Your task to perform on an android device: set an alarm Image 0: 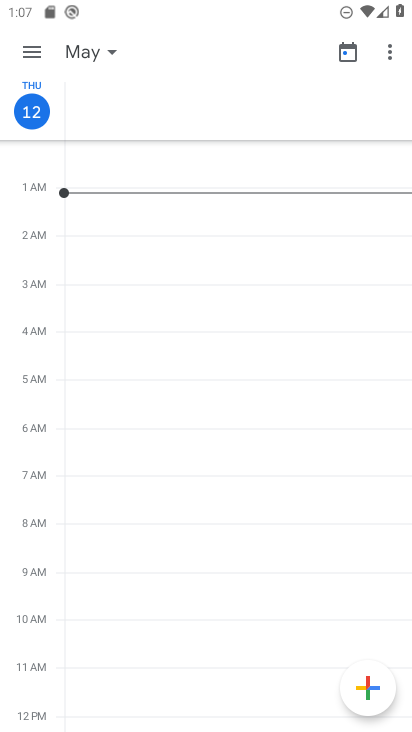
Step 0: press home button
Your task to perform on an android device: set an alarm Image 1: 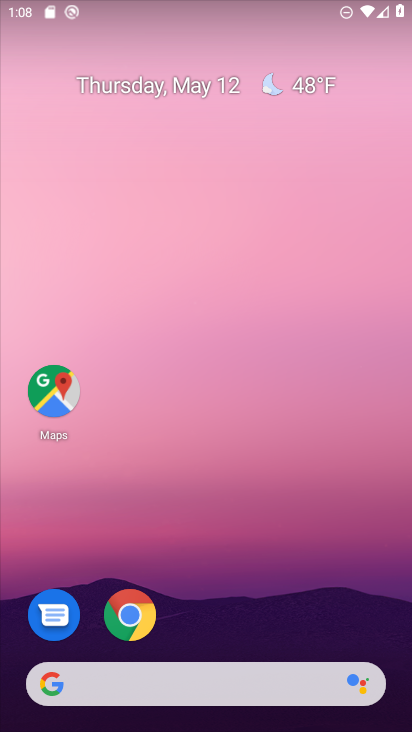
Step 1: drag from (271, 629) to (333, 76)
Your task to perform on an android device: set an alarm Image 2: 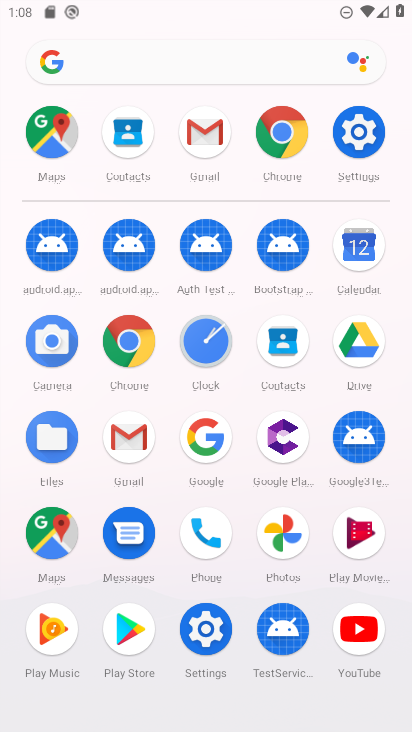
Step 2: click (210, 348)
Your task to perform on an android device: set an alarm Image 3: 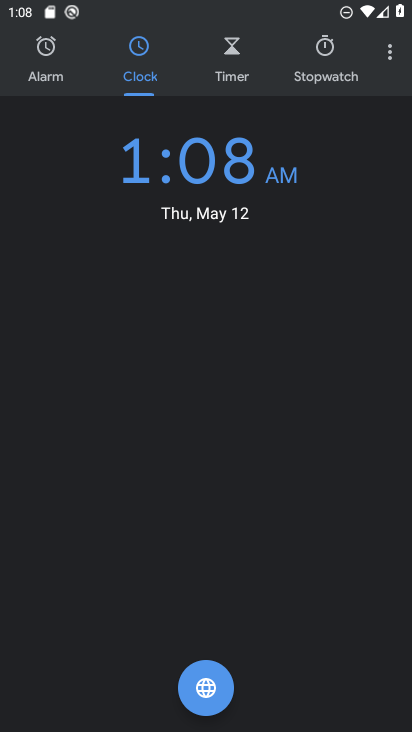
Step 3: click (55, 71)
Your task to perform on an android device: set an alarm Image 4: 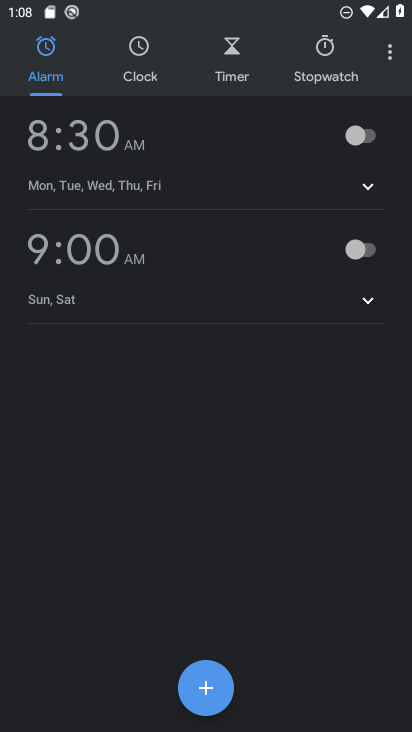
Step 4: click (375, 143)
Your task to perform on an android device: set an alarm Image 5: 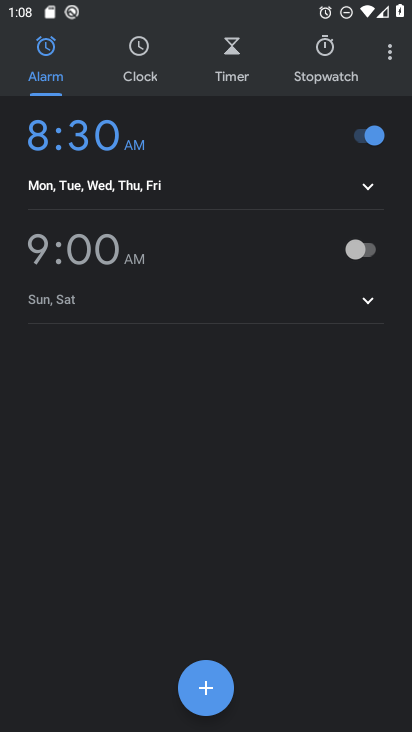
Step 5: task complete